Your task to perform on an android device: Go to display settings Image 0: 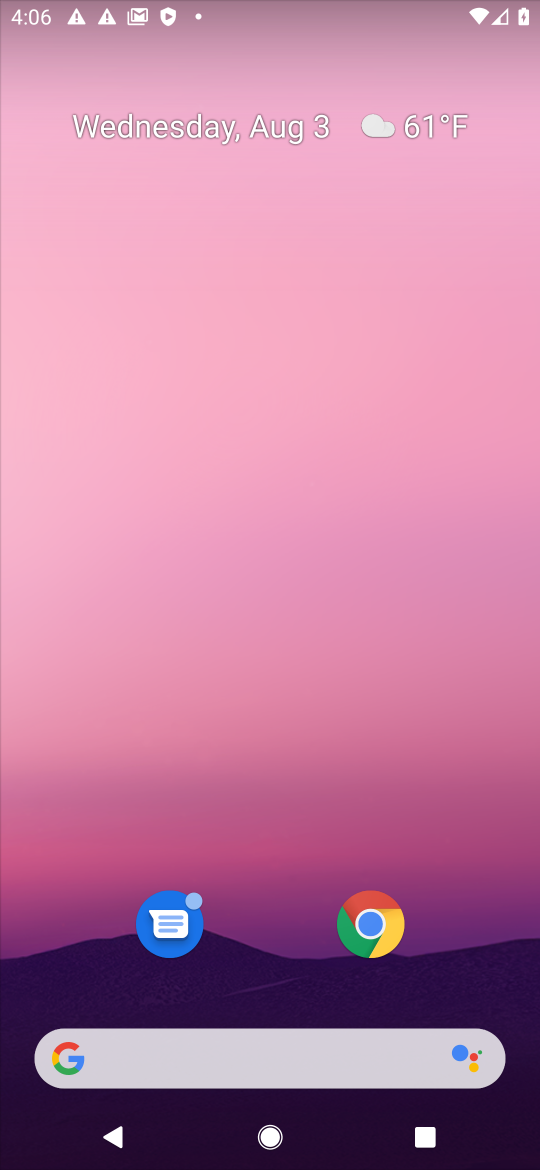
Step 0: drag from (246, 948) to (303, 267)
Your task to perform on an android device: Go to display settings Image 1: 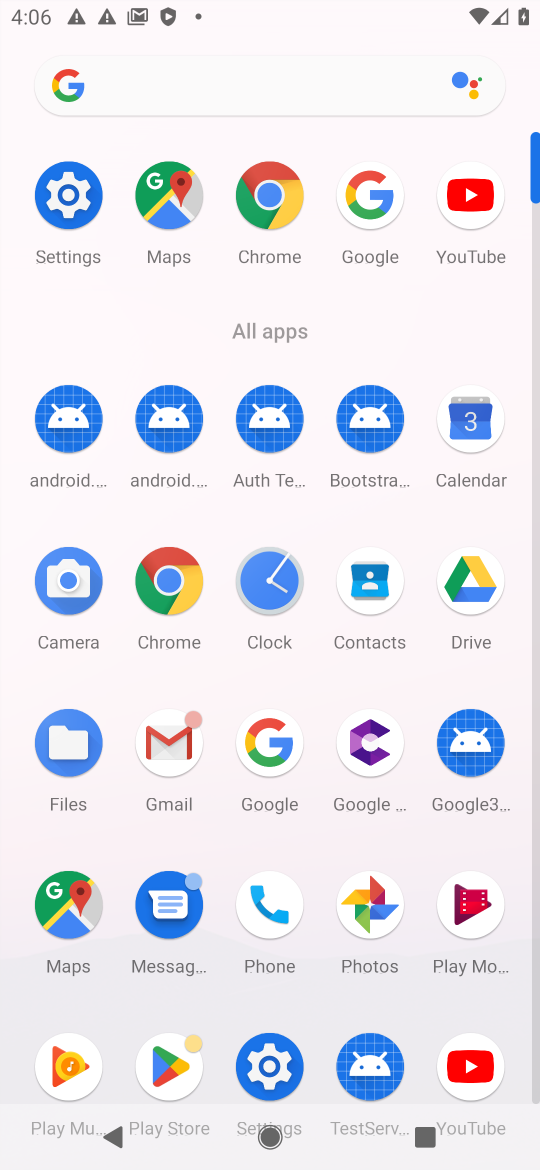
Step 1: click (72, 199)
Your task to perform on an android device: Go to display settings Image 2: 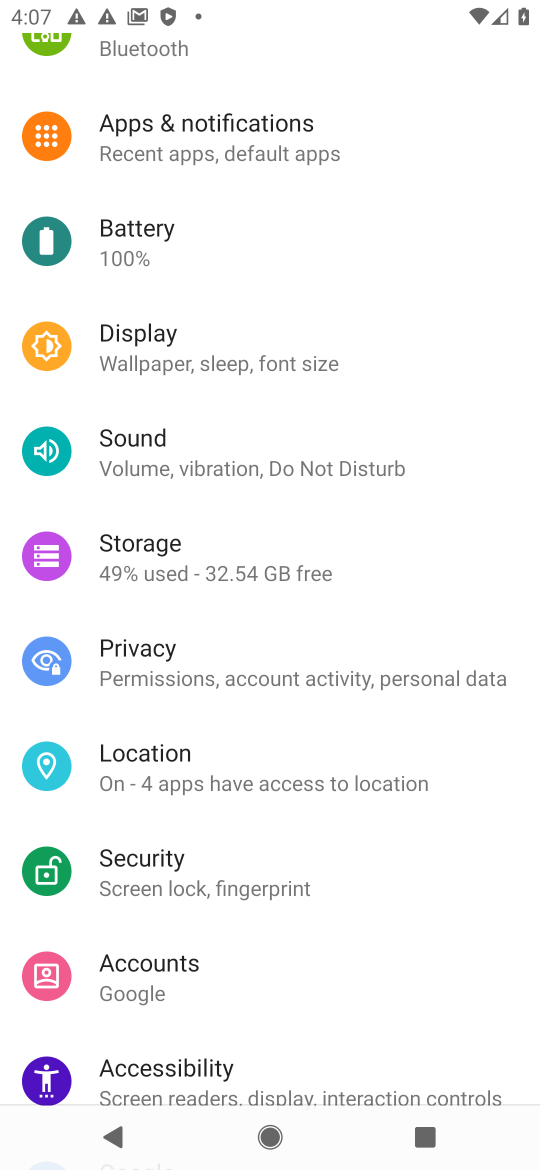
Step 2: click (201, 344)
Your task to perform on an android device: Go to display settings Image 3: 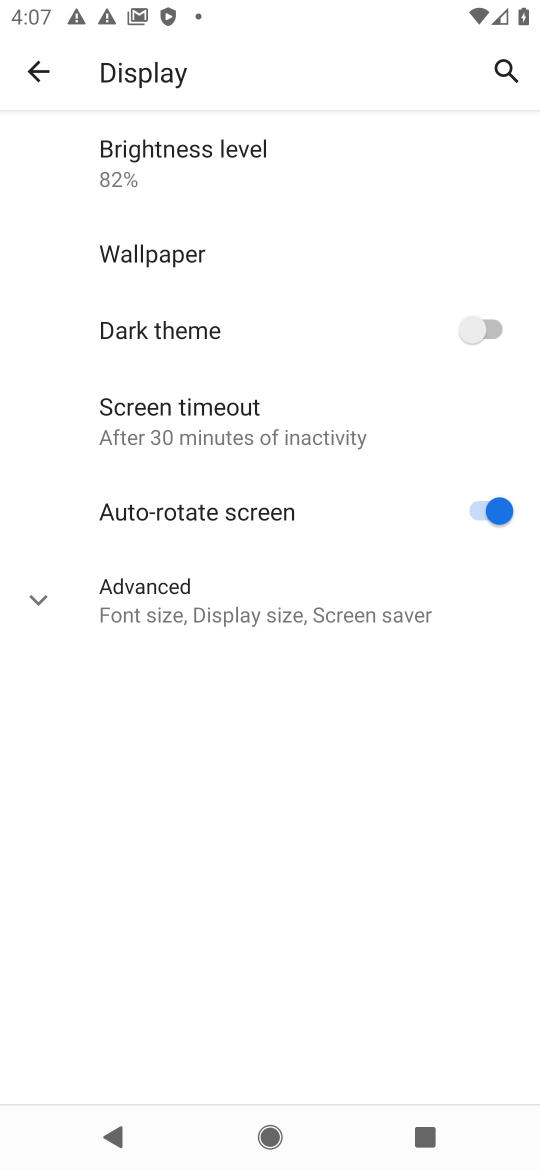
Step 3: task complete